Your task to perform on an android device: turn off notifications in google photos Image 0: 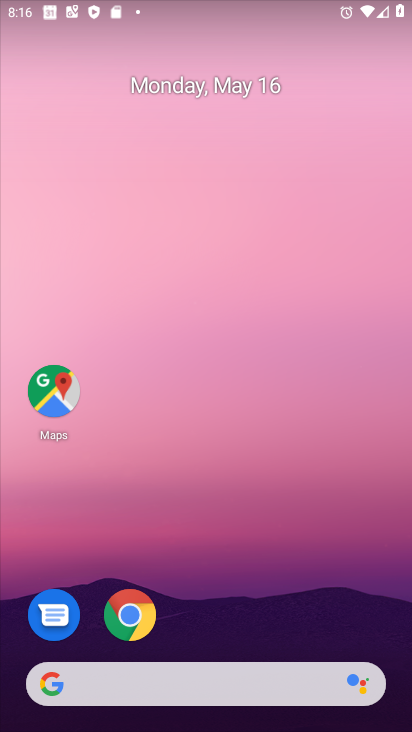
Step 0: drag from (282, 632) to (273, 192)
Your task to perform on an android device: turn off notifications in google photos Image 1: 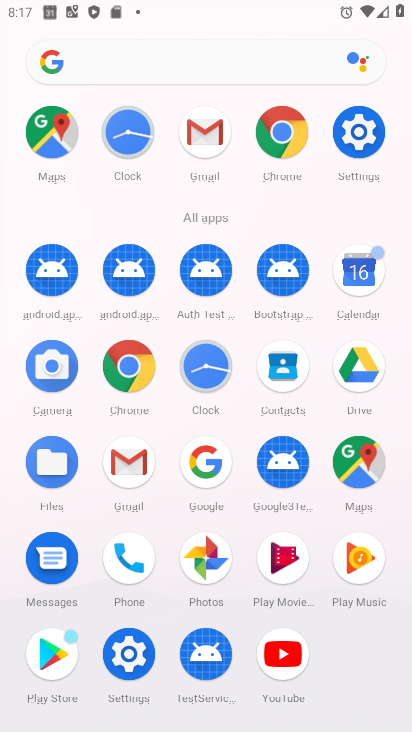
Step 1: click (410, 132)
Your task to perform on an android device: turn off notifications in google photos Image 2: 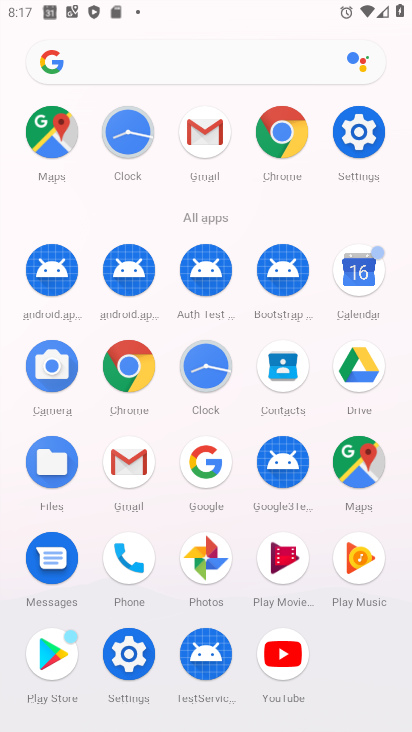
Step 2: click (386, 136)
Your task to perform on an android device: turn off notifications in google photos Image 3: 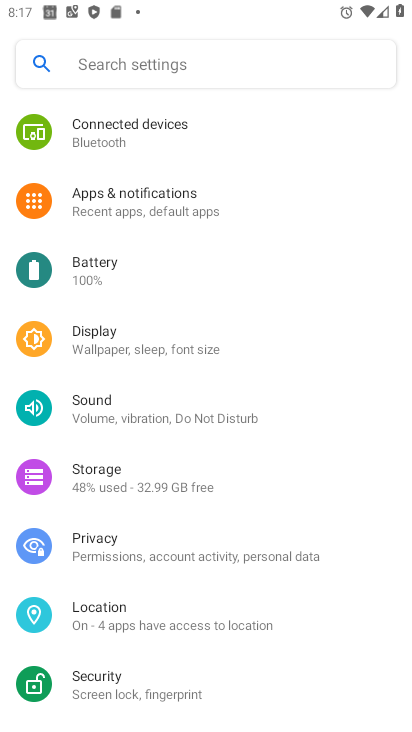
Step 3: click (222, 198)
Your task to perform on an android device: turn off notifications in google photos Image 4: 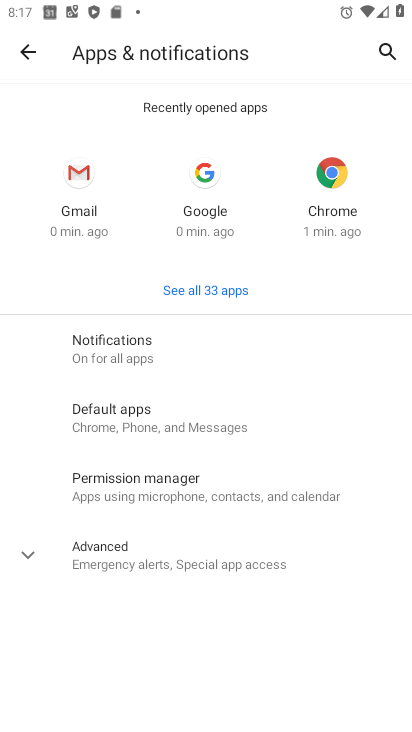
Step 4: click (223, 300)
Your task to perform on an android device: turn off notifications in google photos Image 5: 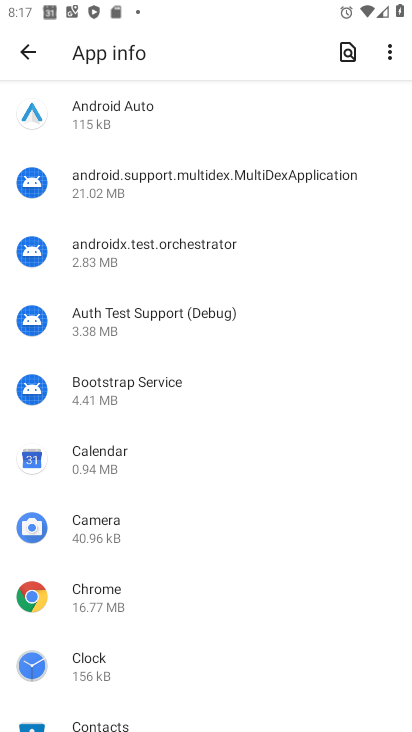
Step 5: drag from (172, 580) to (205, 177)
Your task to perform on an android device: turn off notifications in google photos Image 6: 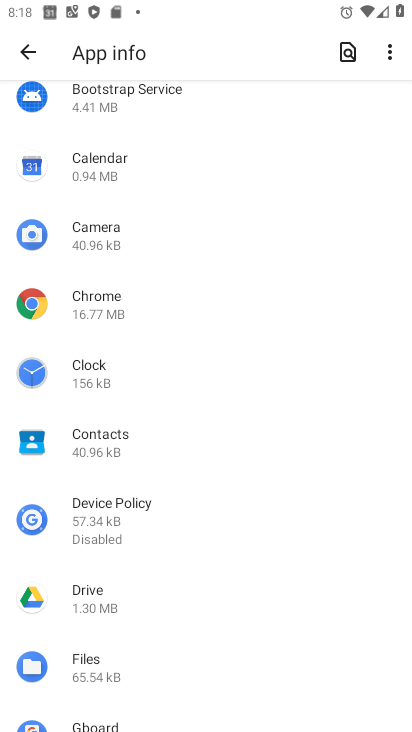
Step 6: drag from (160, 598) to (90, 40)
Your task to perform on an android device: turn off notifications in google photos Image 7: 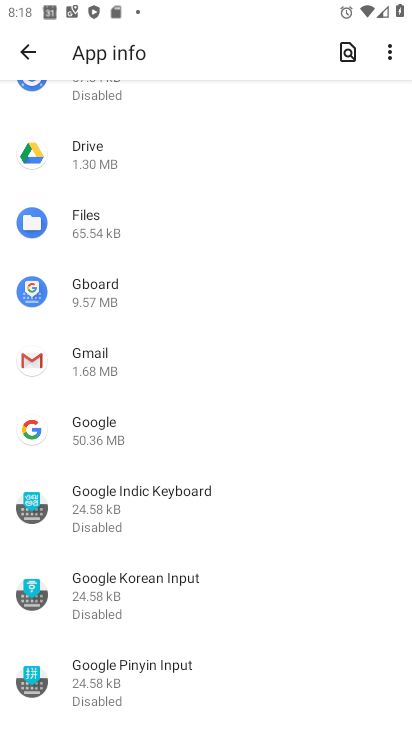
Step 7: drag from (119, 690) to (256, 144)
Your task to perform on an android device: turn off notifications in google photos Image 8: 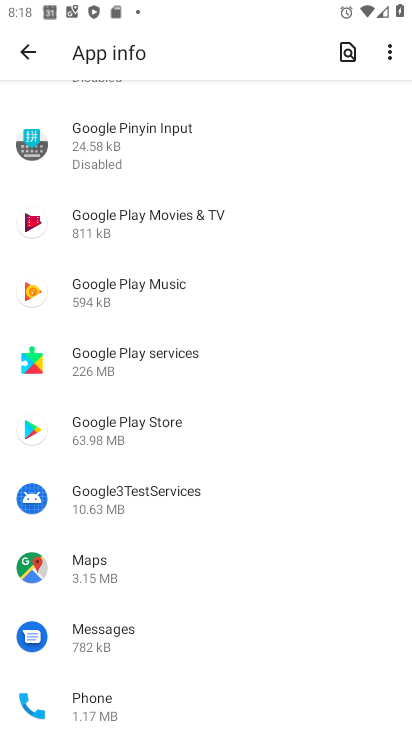
Step 8: drag from (109, 683) to (193, 170)
Your task to perform on an android device: turn off notifications in google photos Image 9: 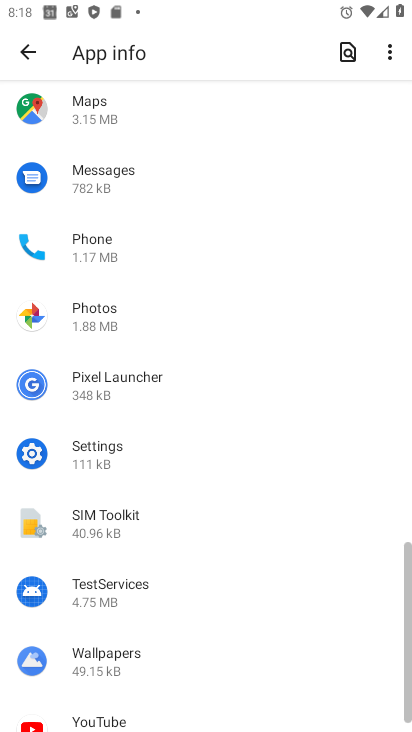
Step 9: drag from (77, 715) to (171, 166)
Your task to perform on an android device: turn off notifications in google photos Image 10: 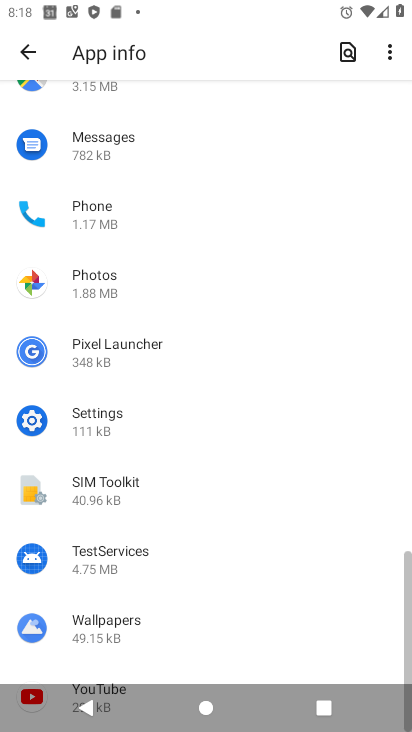
Step 10: click (76, 285)
Your task to perform on an android device: turn off notifications in google photos Image 11: 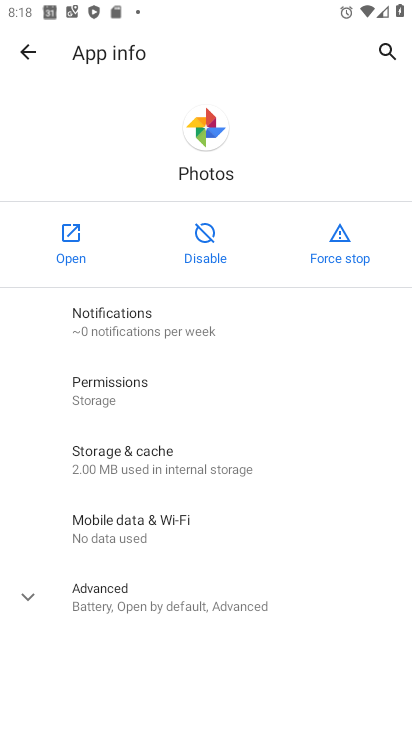
Step 11: task complete